Your task to perform on an android device: Do I have any events this weekend? Image 0: 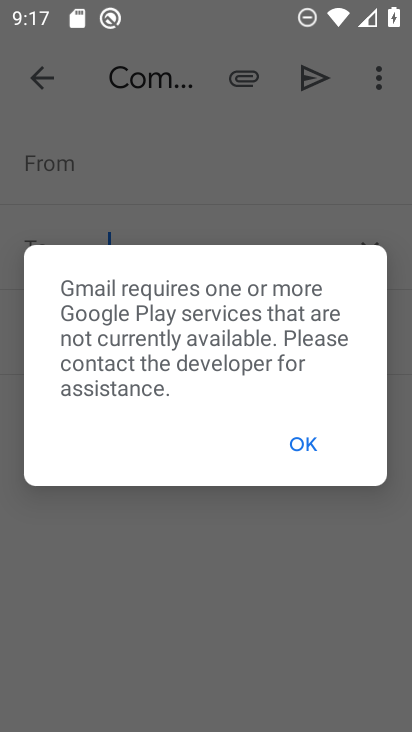
Step 0: drag from (252, 678) to (252, 228)
Your task to perform on an android device: Do I have any events this weekend? Image 1: 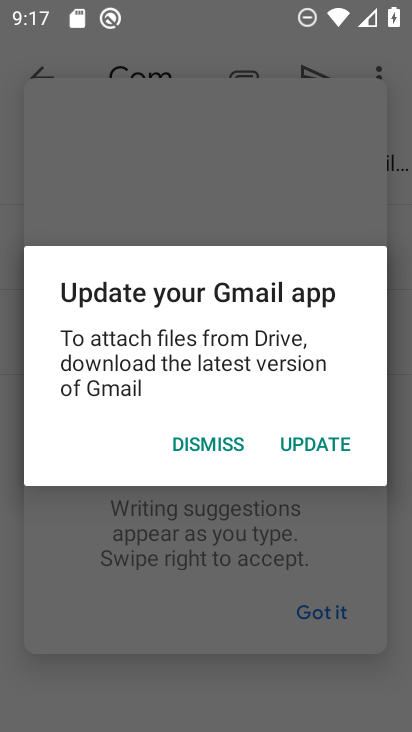
Step 1: click (332, 620)
Your task to perform on an android device: Do I have any events this weekend? Image 2: 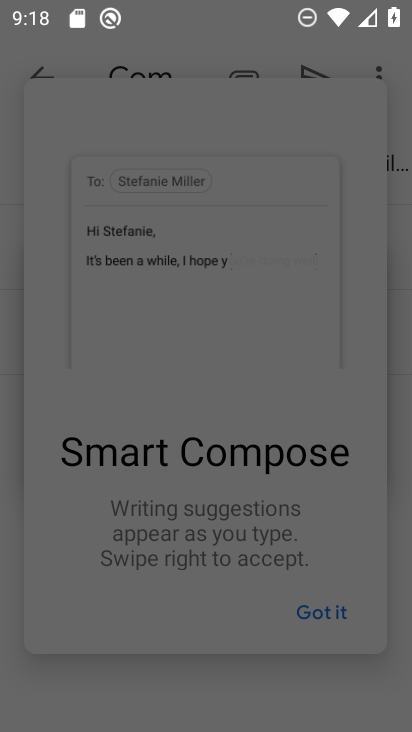
Step 2: click (305, 606)
Your task to perform on an android device: Do I have any events this weekend? Image 3: 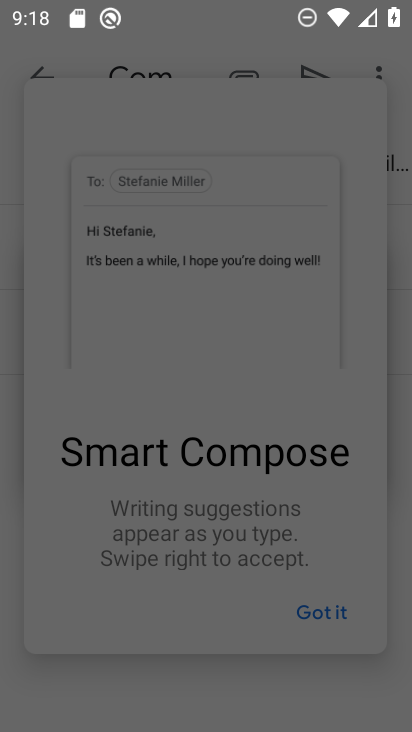
Step 3: click (307, 605)
Your task to perform on an android device: Do I have any events this weekend? Image 4: 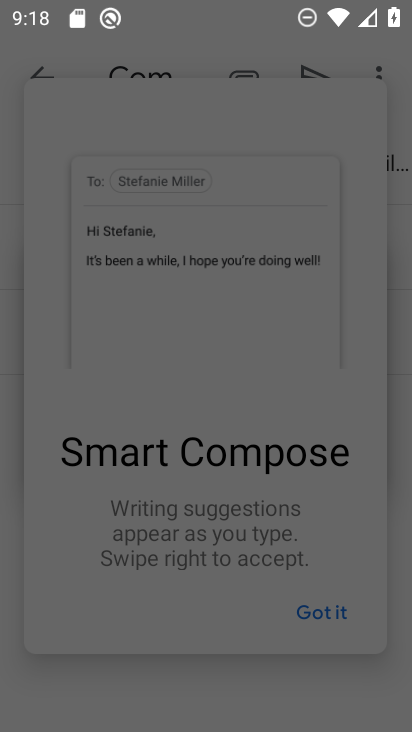
Step 4: click (307, 605)
Your task to perform on an android device: Do I have any events this weekend? Image 5: 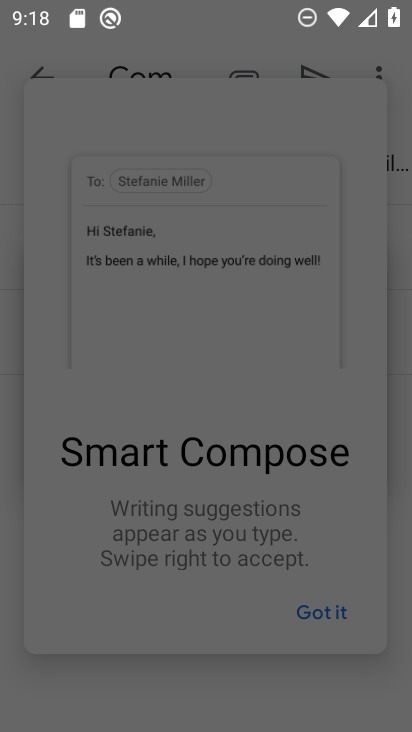
Step 5: click (315, 607)
Your task to perform on an android device: Do I have any events this weekend? Image 6: 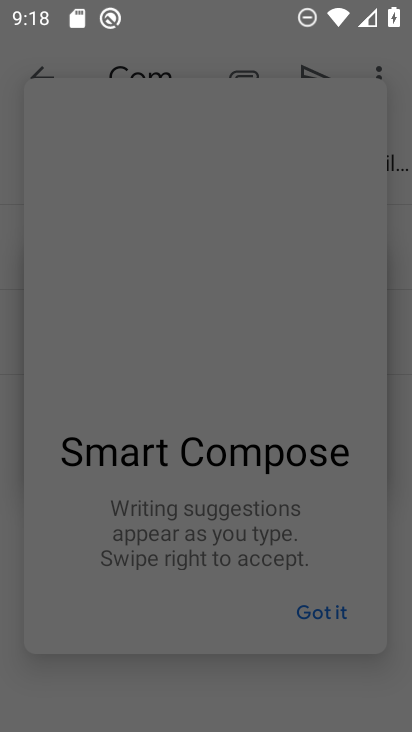
Step 6: click (326, 607)
Your task to perform on an android device: Do I have any events this weekend? Image 7: 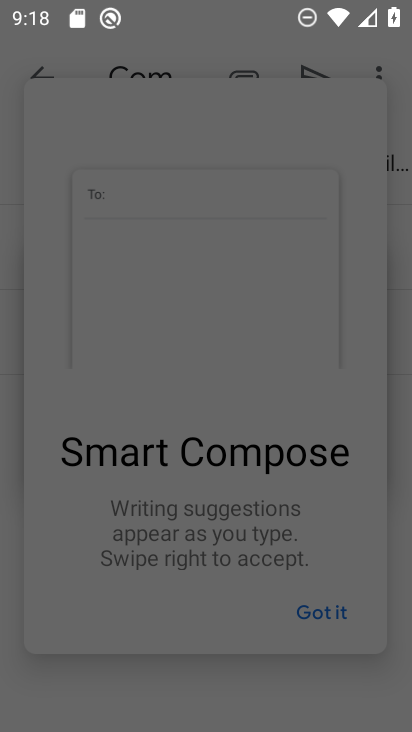
Step 7: click (333, 611)
Your task to perform on an android device: Do I have any events this weekend? Image 8: 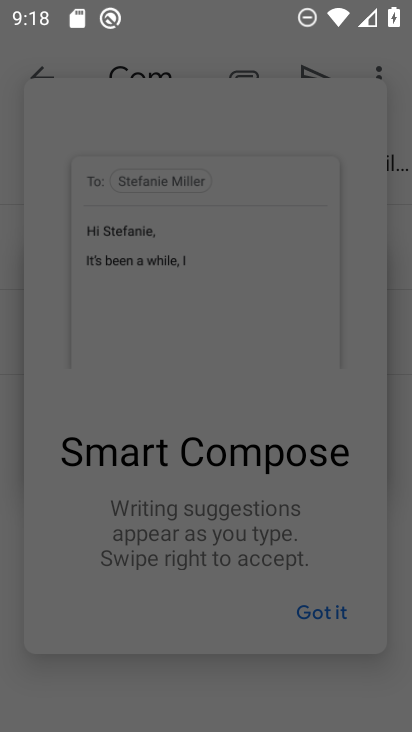
Step 8: press back button
Your task to perform on an android device: Do I have any events this weekend? Image 9: 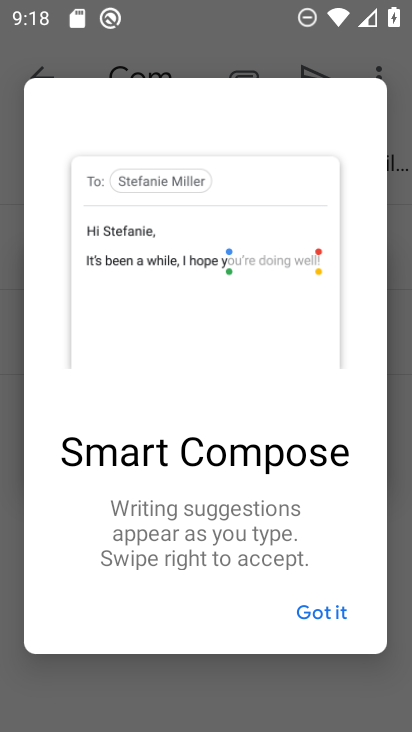
Step 9: press back button
Your task to perform on an android device: Do I have any events this weekend? Image 10: 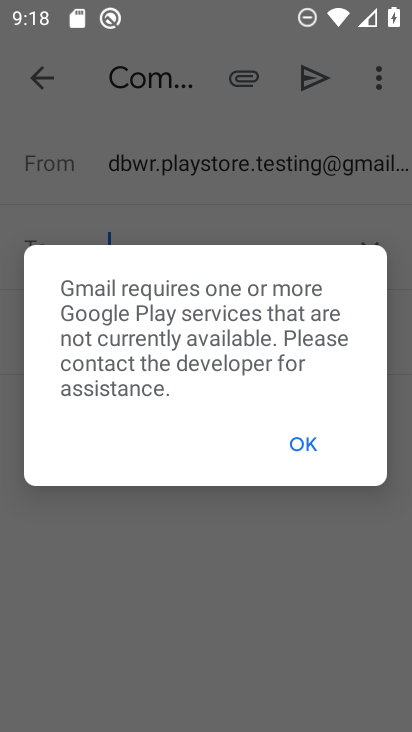
Step 10: click (305, 438)
Your task to perform on an android device: Do I have any events this weekend? Image 11: 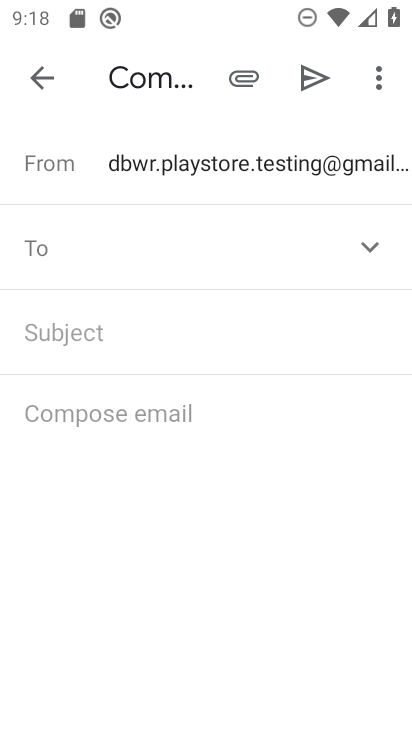
Step 11: click (308, 442)
Your task to perform on an android device: Do I have any events this weekend? Image 12: 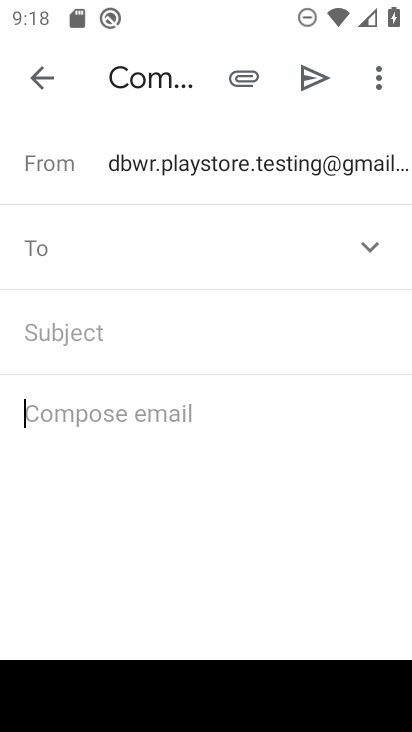
Step 12: click (39, 78)
Your task to perform on an android device: Do I have any events this weekend? Image 13: 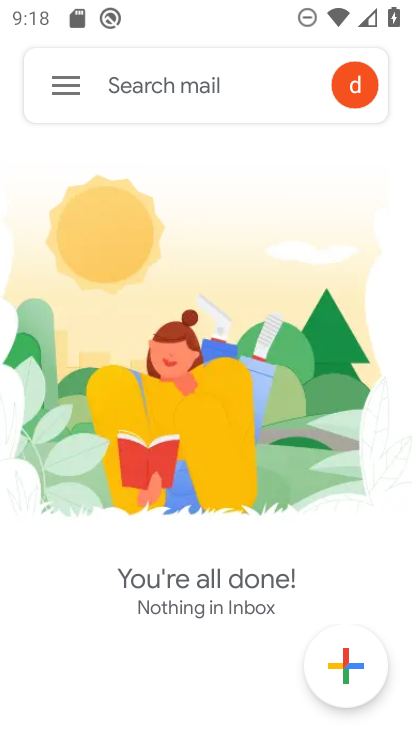
Step 13: press back button
Your task to perform on an android device: Do I have any events this weekend? Image 14: 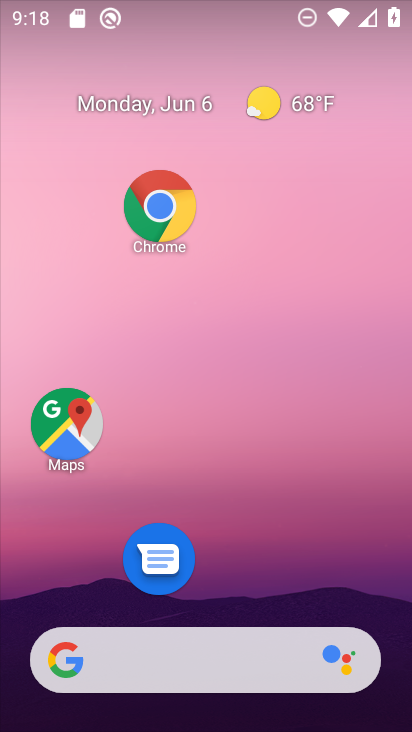
Step 14: drag from (276, 629) to (241, 163)
Your task to perform on an android device: Do I have any events this weekend? Image 15: 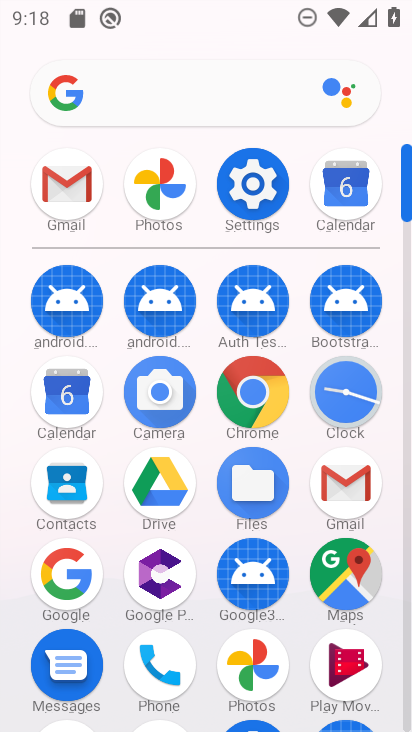
Step 15: click (67, 383)
Your task to perform on an android device: Do I have any events this weekend? Image 16: 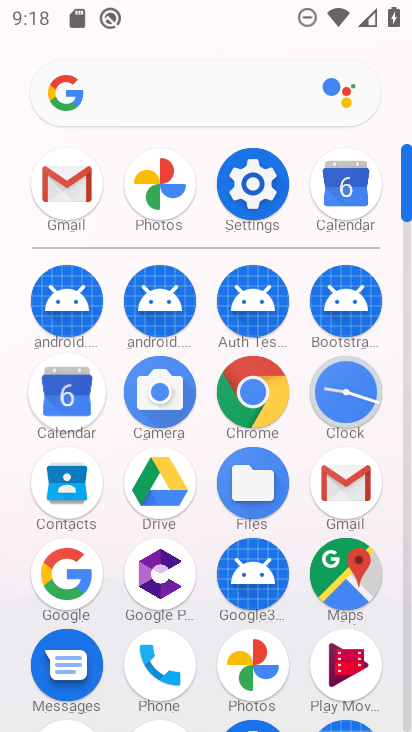
Step 16: click (68, 383)
Your task to perform on an android device: Do I have any events this weekend? Image 17: 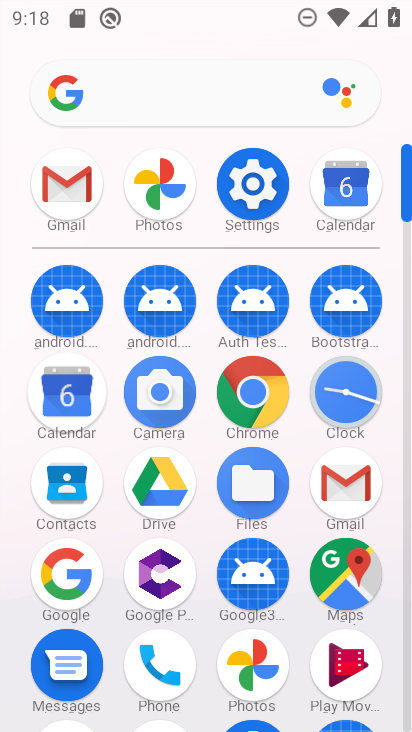
Step 17: click (68, 383)
Your task to perform on an android device: Do I have any events this weekend? Image 18: 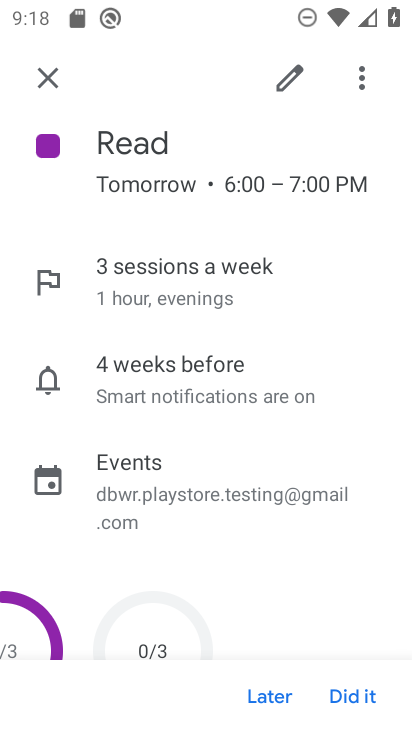
Step 18: click (57, 83)
Your task to perform on an android device: Do I have any events this weekend? Image 19: 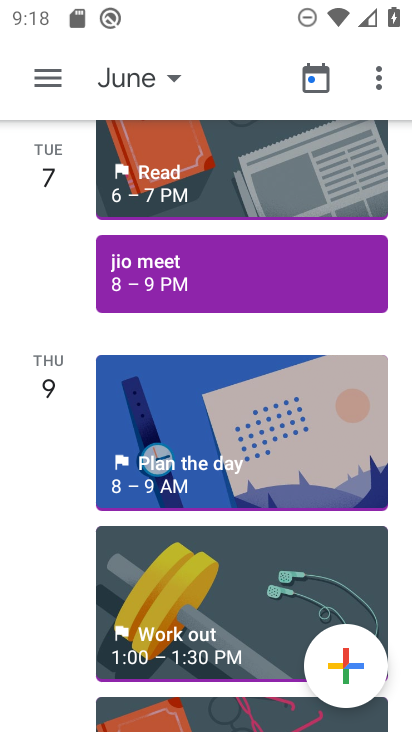
Step 19: drag from (131, 495) to (206, 249)
Your task to perform on an android device: Do I have any events this weekend? Image 20: 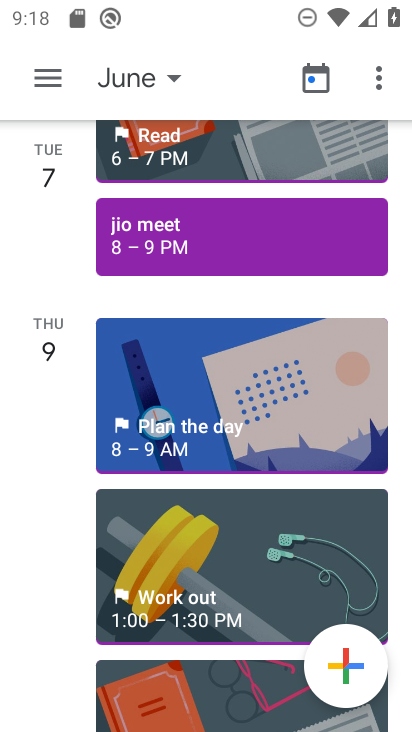
Step 20: drag from (209, 461) to (257, 267)
Your task to perform on an android device: Do I have any events this weekend? Image 21: 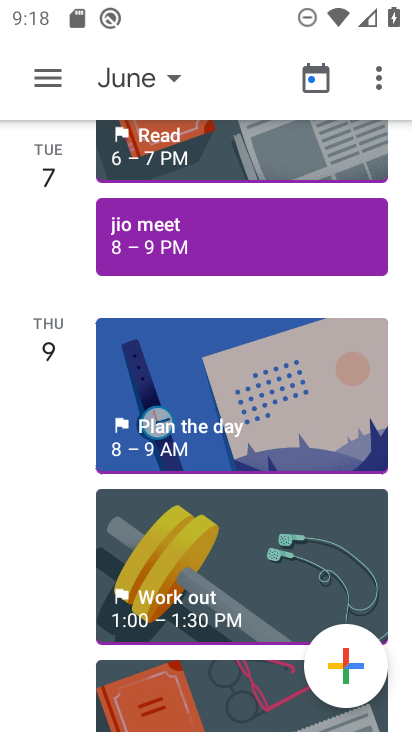
Step 21: drag from (232, 443) to (245, 234)
Your task to perform on an android device: Do I have any events this weekend? Image 22: 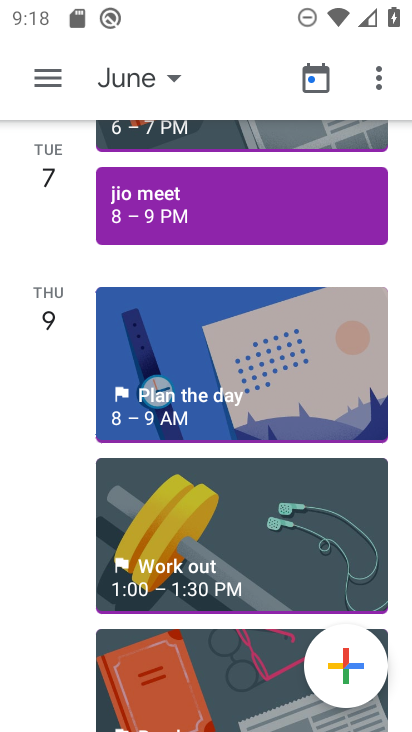
Step 22: drag from (219, 438) to (219, 256)
Your task to perform on an android device: Do I have any events this weekend? Image 23: 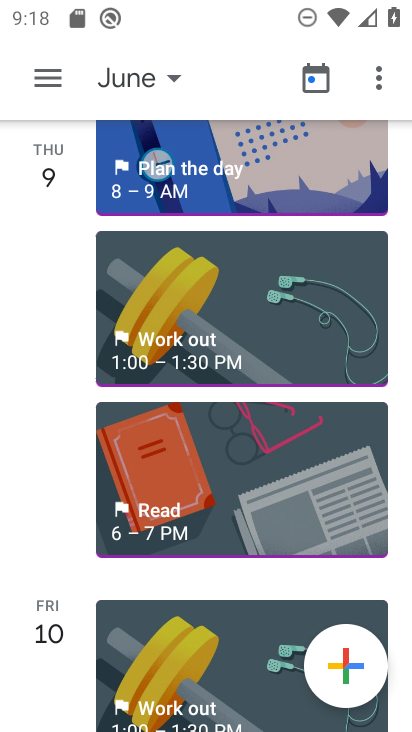
Step 23: drag from (193, 400) to (208, 227)
Your task to perform on an android device: Do I have any events this weekend? Image 24: 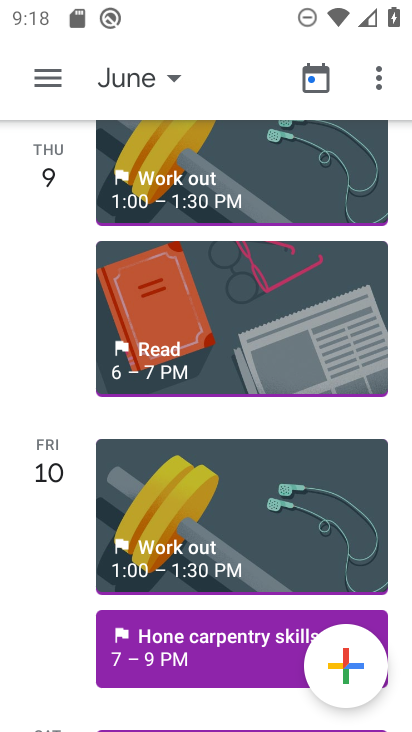
Step 24: drag from (164, 463) to (174, 285)
Your task to perform on an android device: Do I have any events this weekend? Image 25: 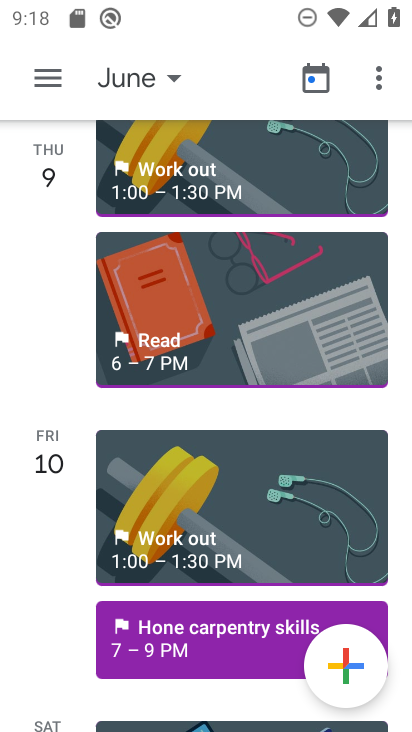
Step 25: drag from (159, 417) to (159, 271)
Your task to perform on an android device: Do I have any events this weekend? Image 26: 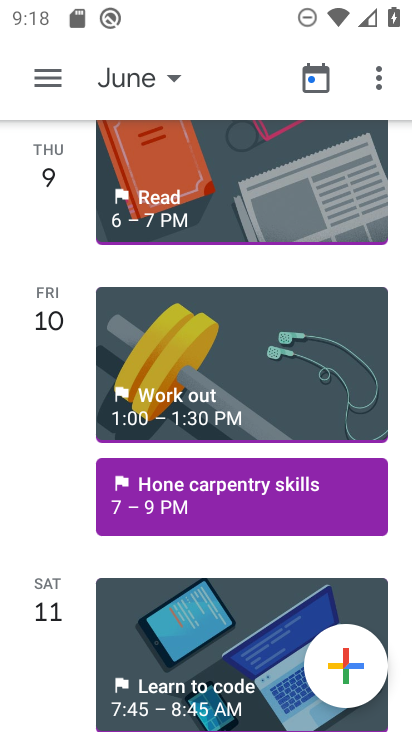
Step 26: click (179, 354)
Your task to perform on an android device: Do I have any events this weekend? Image 27: 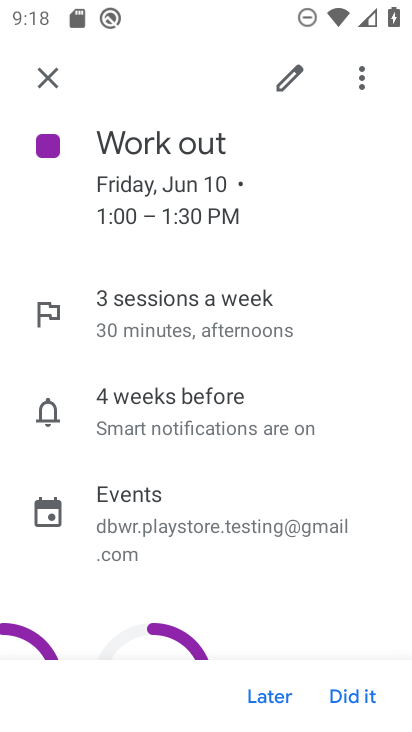
Step 27: click (46, 75)
Your task to perform on an android device: Do I have any events this weekend? Image 28: 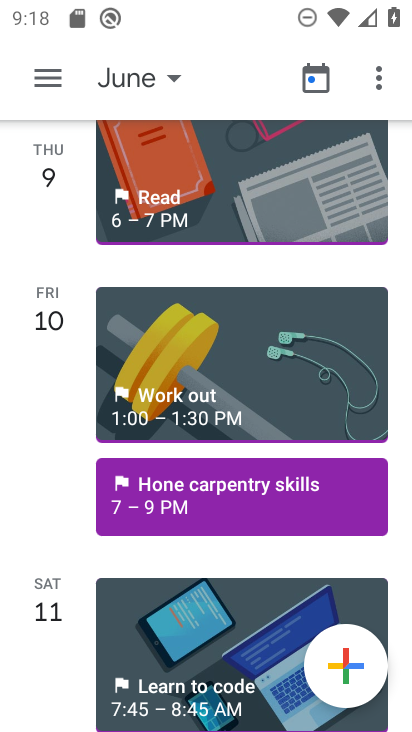
Step 28: click (174, 623)
Your task to perform on an android device: Do I have any events this weekend? Image 29: 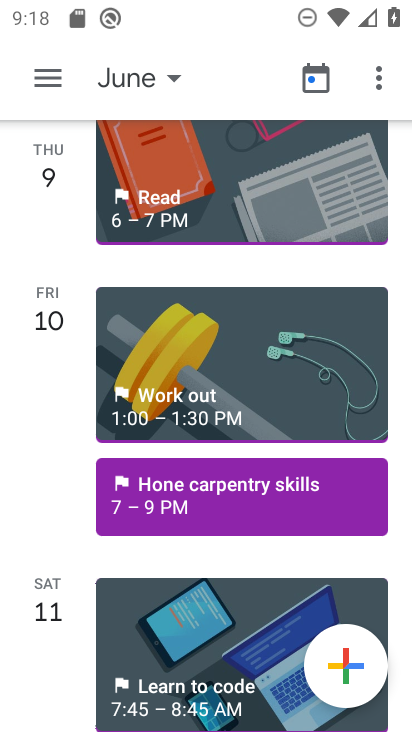
Step 29: click (172, 620)
Your task to perform on an android device: Do I have any events this weekend? Image 30: 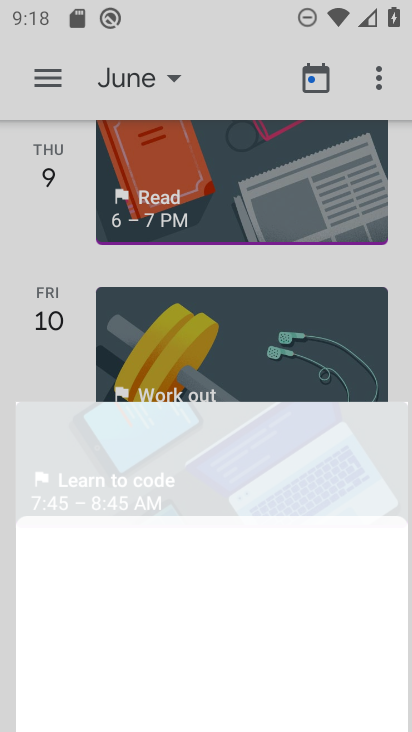
Step 30: click (175, 620)
Your task to perform on an android device: Do I have any events this weekend? Image 31: 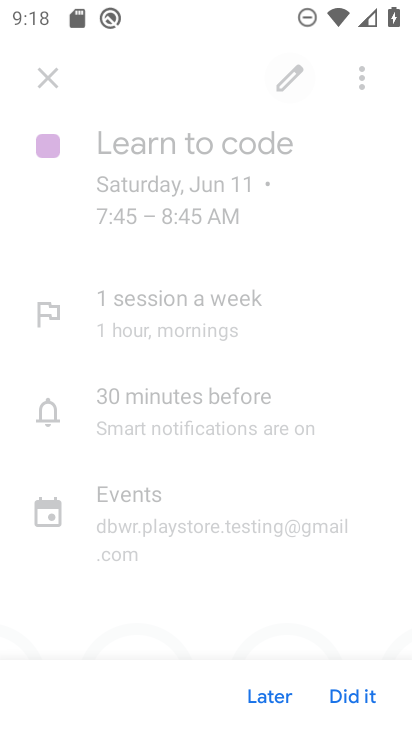
Step 31: click (176, 622)
Your task to perform on an android device: Do I have any events this weekend? Image 32: 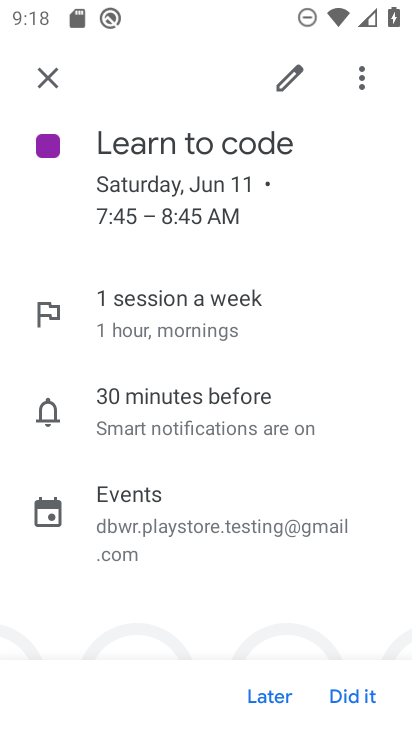
Step 32: click (176, 622)
Your task to perform on an android device: Do I have any events this weekend? Image 33: 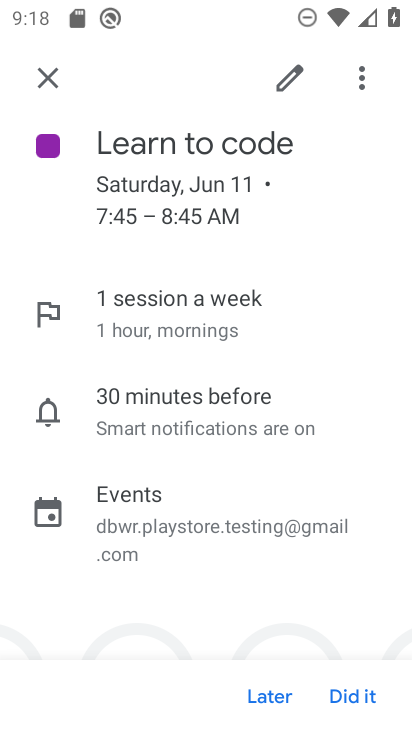
Step 33: task complete